Your task to perform on an android device: toggle airplane mode Image 0: 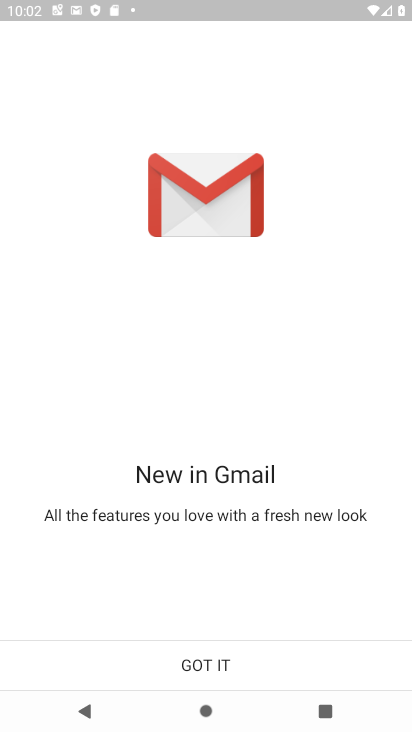
Step 0: press back button
Your task to perform on an android device: toggle airplane mode Image 1: 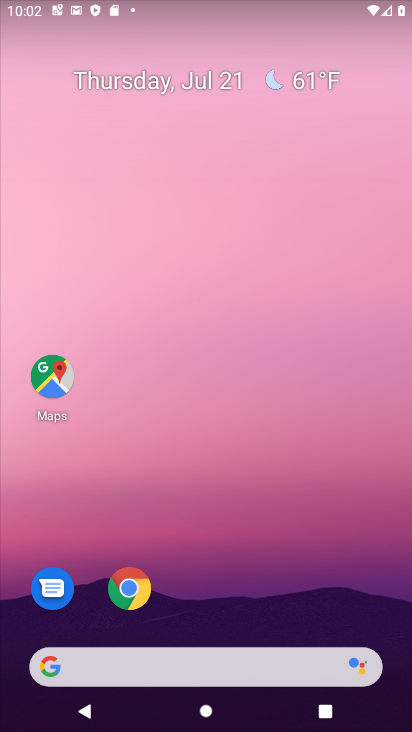
Step 1: drag from (356, 70) to (209, 614)
Your task to perform on an android device: toggle airplane mode Image 2: 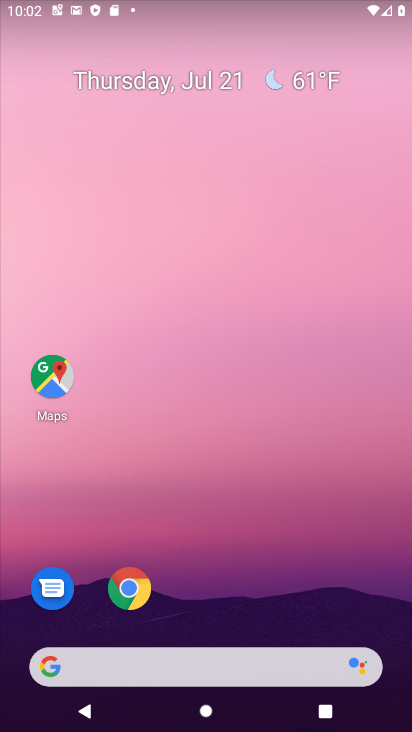
Step 2: drag from (372, 8) to (276, 521)
Your task to perform on an android device: toggle airplane mode Image 3: 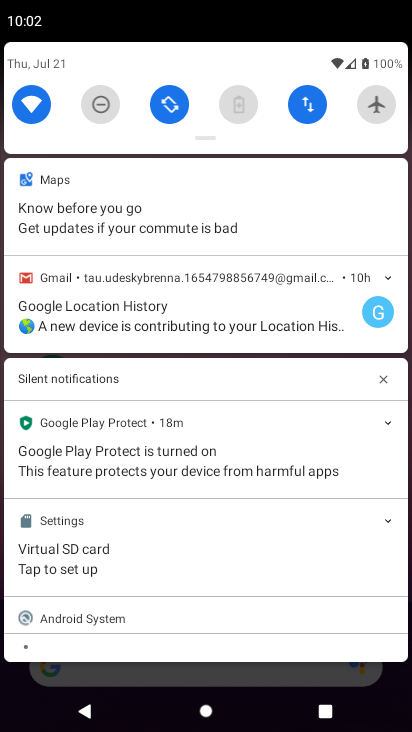
Step 3: click (378, 111)
Your task to perform on an android device: toggle airplane mode Image 4: 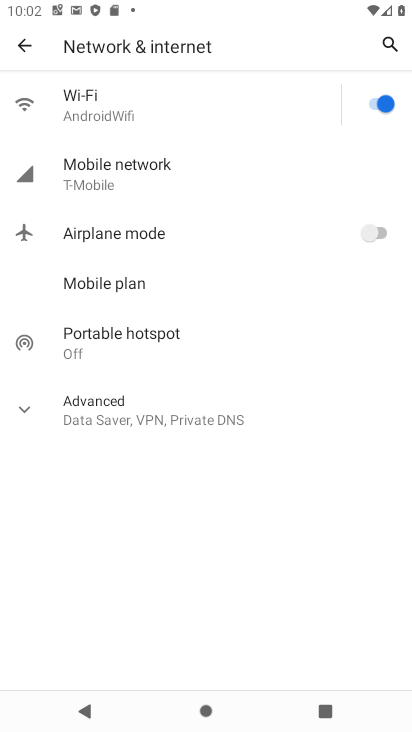
Step 4: task complete